Your task to perform on an android device: open chrome and create a bookmark for the current page Image 0: 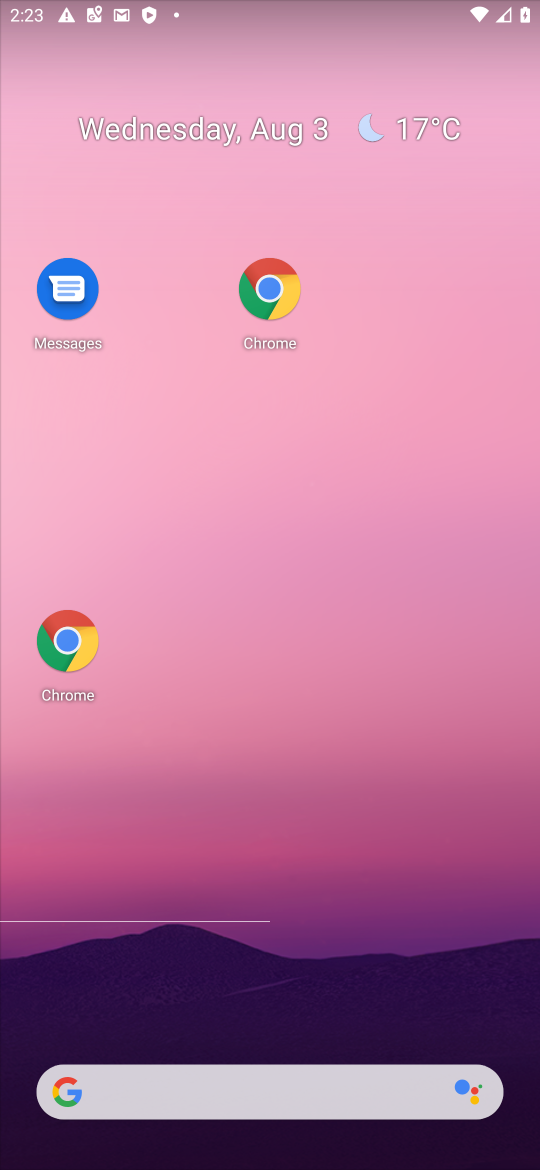
Step 0: click (261, 322)
Your task to perform on an android device: open chrome and create a bookmark for the current page Image 1: 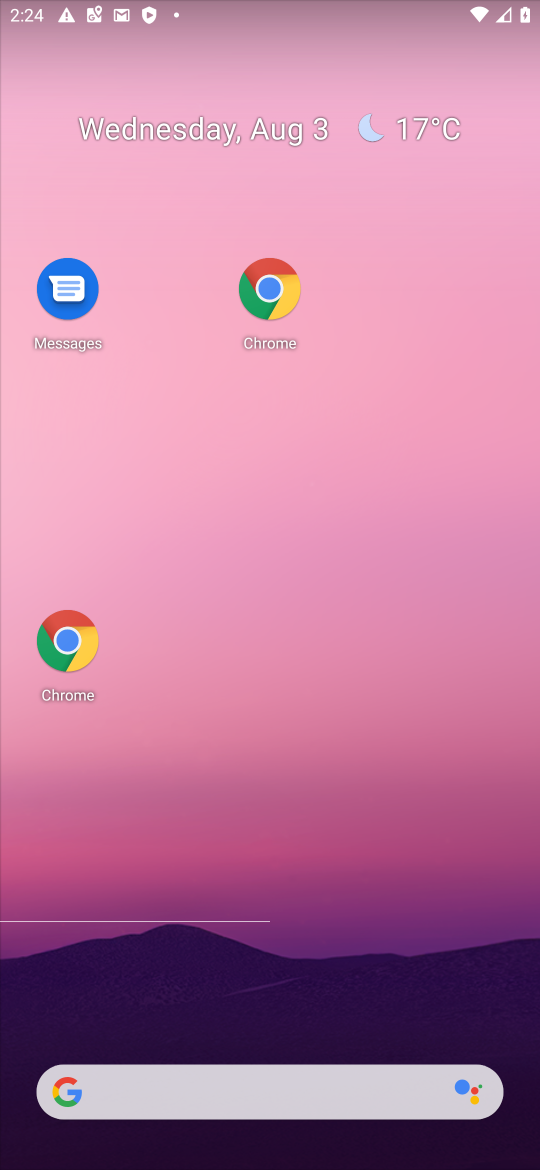
Step 1: click (281, 295)
Your task to perform on an android device: open chrome and create a bookmark for the current page Image 2: 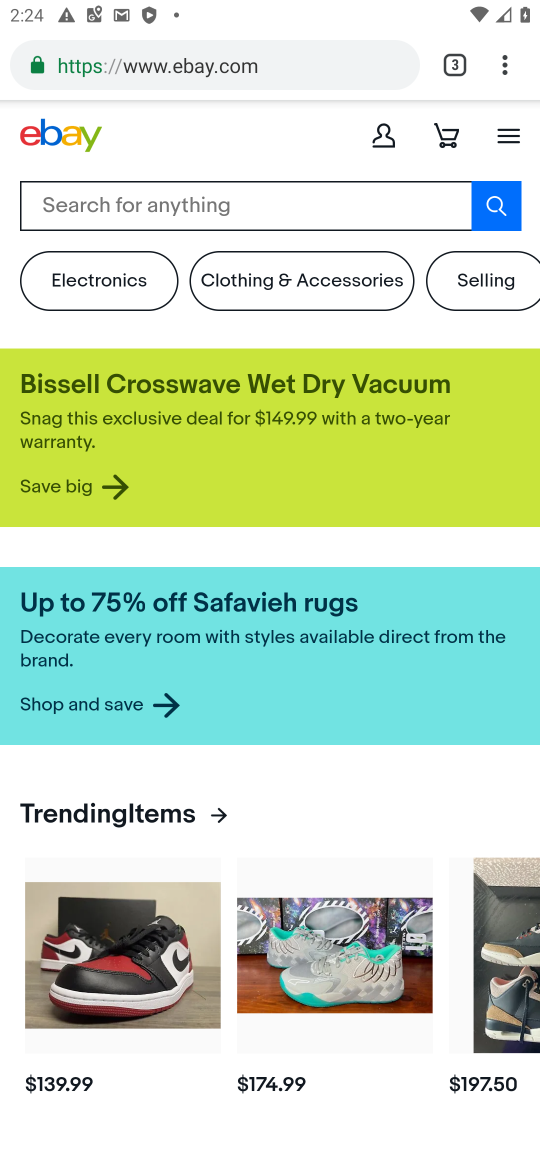
Step 2: click (497, 78)
Your task to perform on an android device: open chrome and create a bookmark for the current page Image 3: 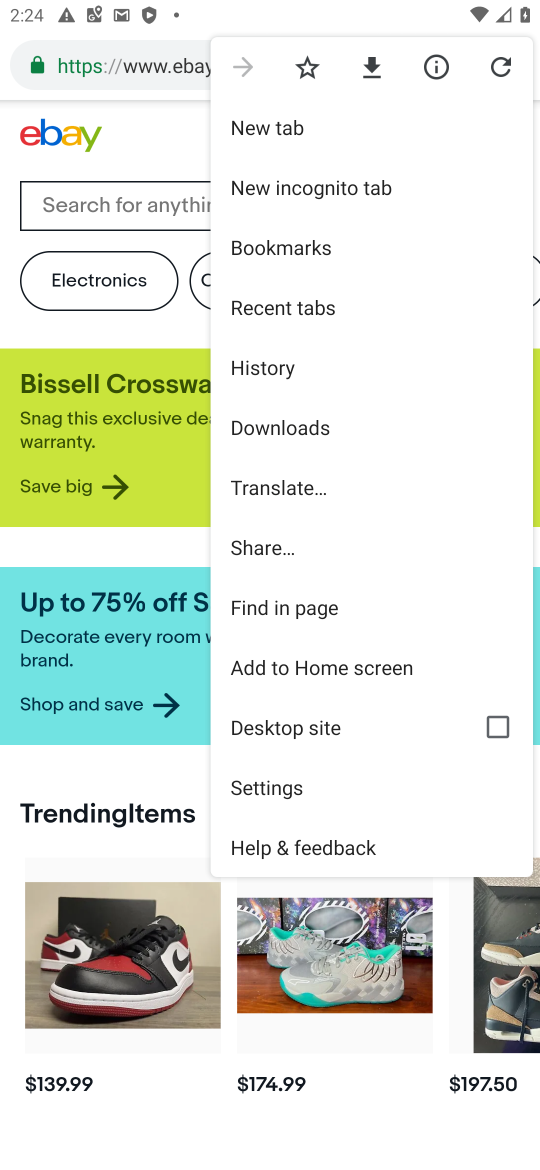
Step 3: click (14, 333)
Your task to perform on an android device: open chrome and create a bookmark for the current page Image 4: 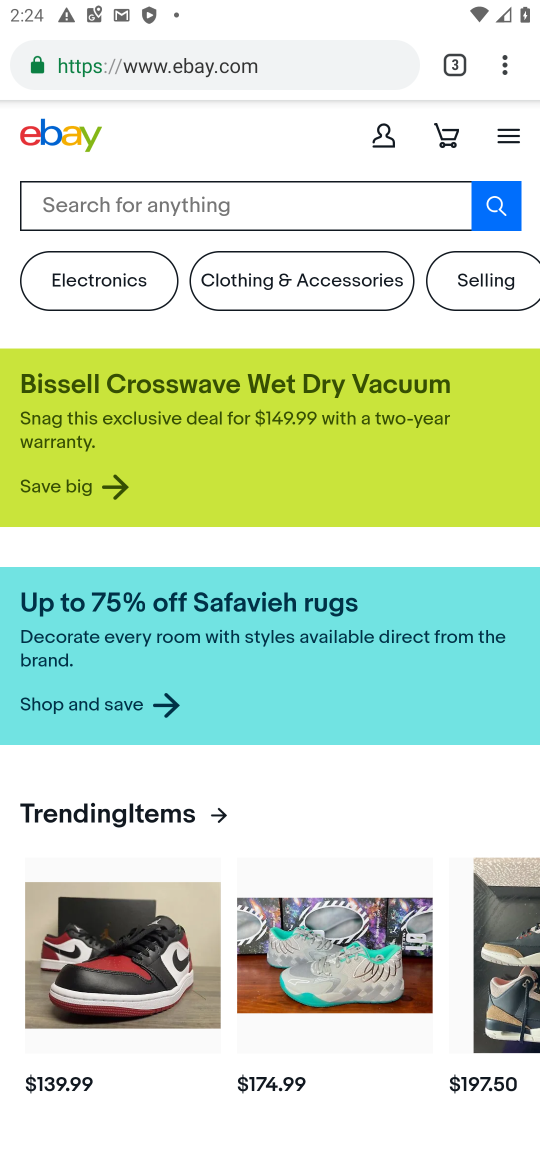
Step 4: click (506, 82)
Your task to perform on an android device: open chrome and create a bookmark for the current page Image 5: 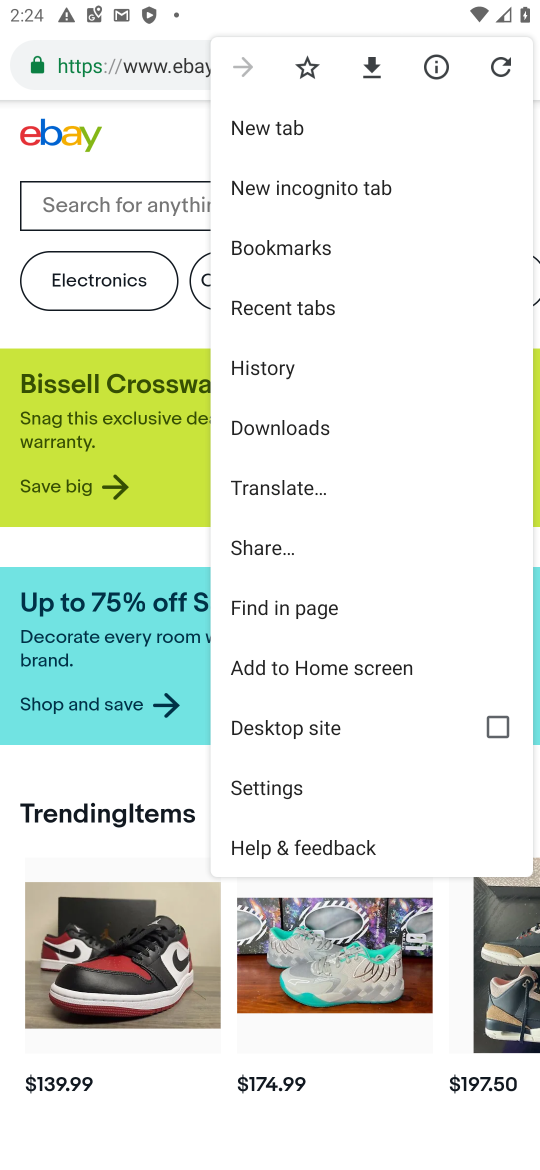
Step 5: click (292, 72)
Your task to perform on an android device: open chrome and create a bookmark for the current page Image 6: 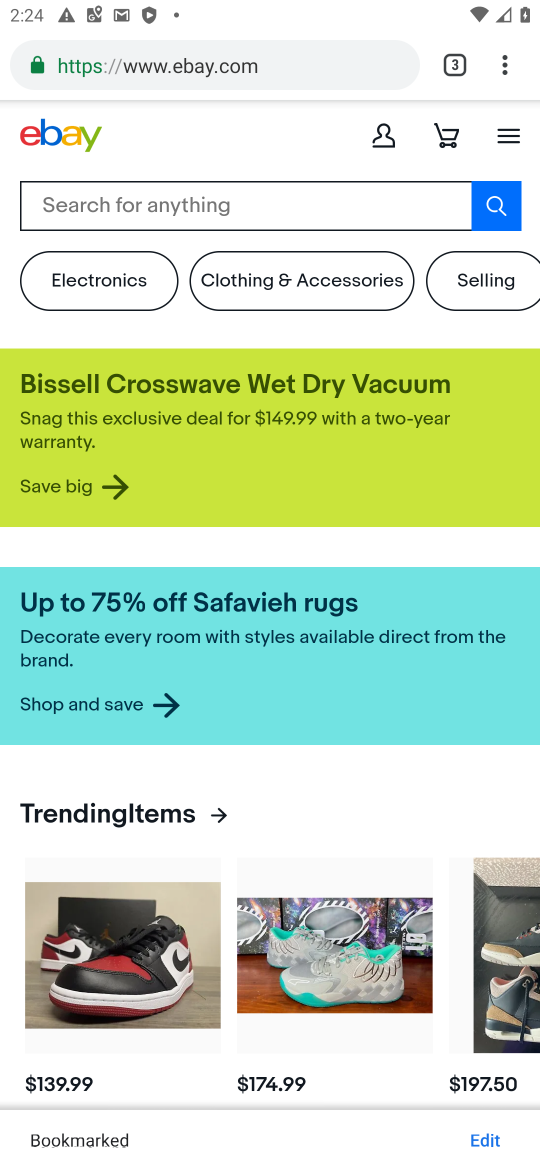
Step 6: task complete